Your task to perform on an android device: set default search engine in the chrome app Image 0: 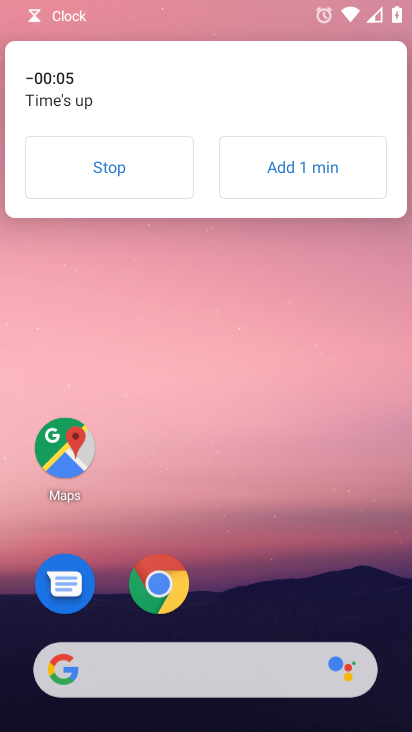
Step 0: click (280, 410)
Your task to perform on an android device: set default search engine in the chrome app Image 1: 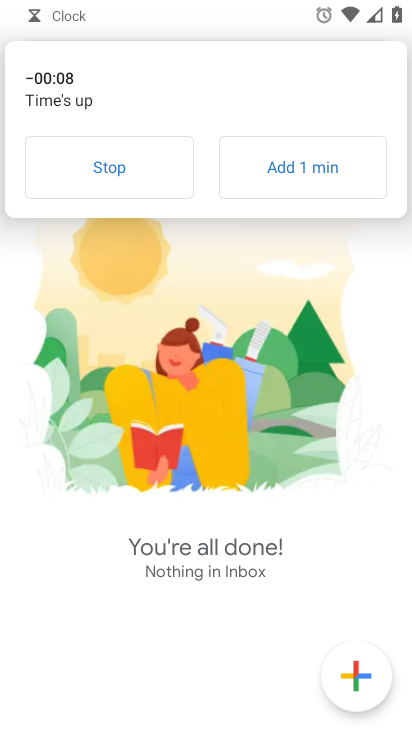
Step 1: press home button
Your task to perform on an android device: set default search engine in the chrome app Image 2: 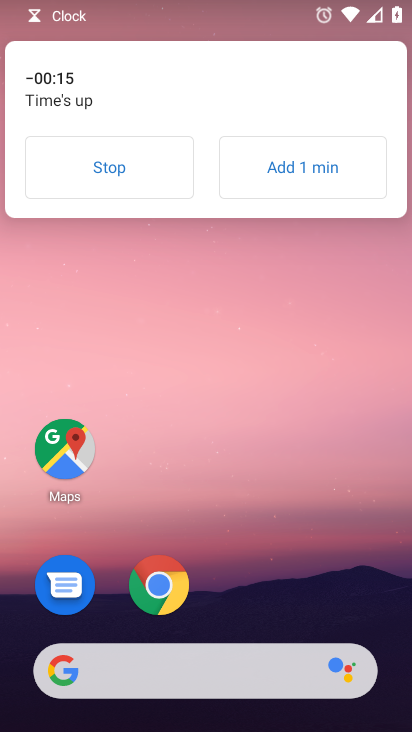
Step 2: click (156, 175)
Your task to perform on an android device: set default search engine in the chrome app Image 3: 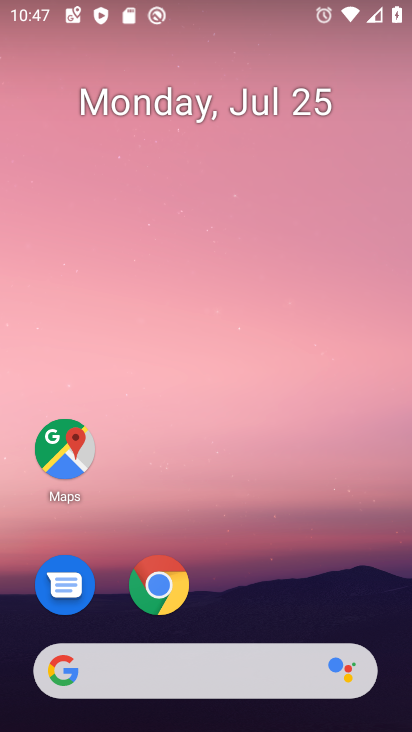
Step 3: drag from (249, 664) to (168, 26)
Your task to perform on an android device: set default search engine in the chrome app Image 4: 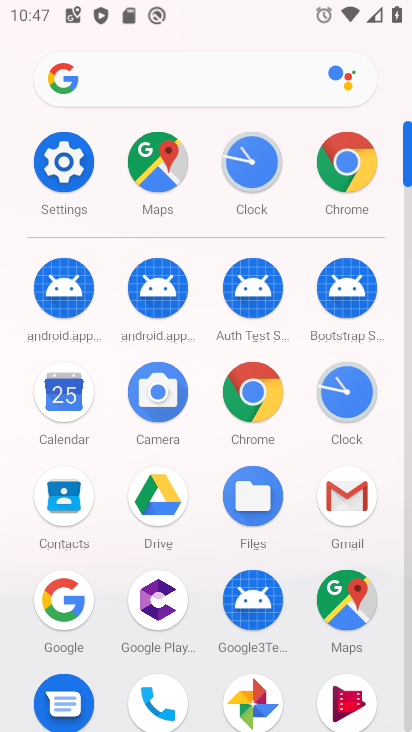
Step 4: click (254, 413)
Your task to perform on an android device: set default search engine in the chrome app Image 5: 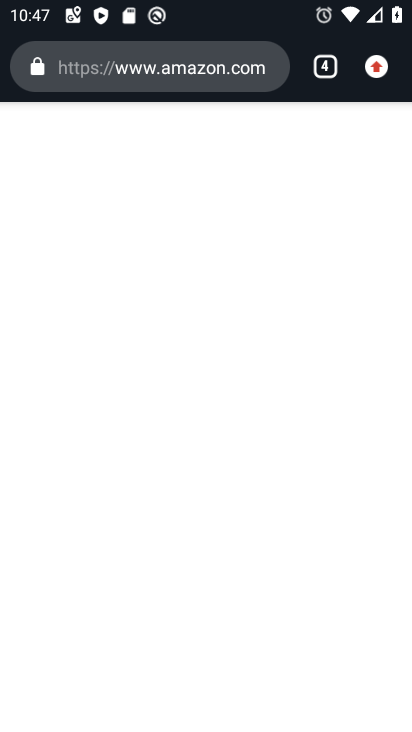
Step 5: click (321, 63)
Your task to perform on an android device: set default search engine in the chrome app Image 6: 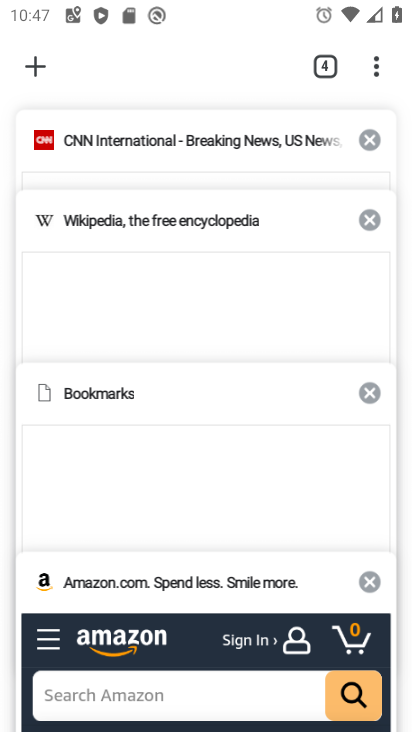
Step 6: click (34, 68)
Your task to perform on an android device: set default search engine in the chrome app Image 7: 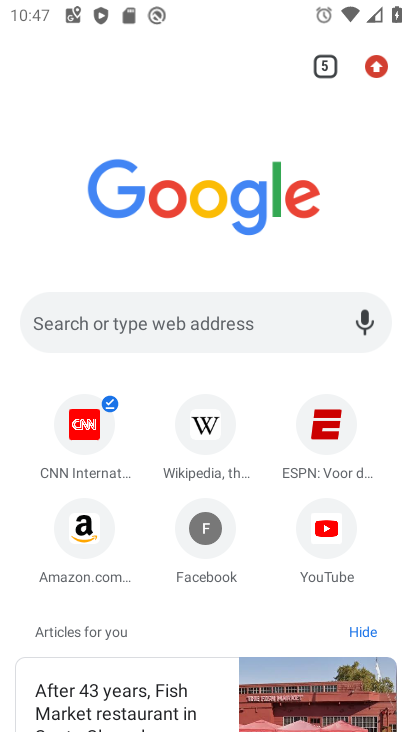
Step 7: click (379, 67)
Your task to perform on an android device: set default search engine in the chrome app Image 8: 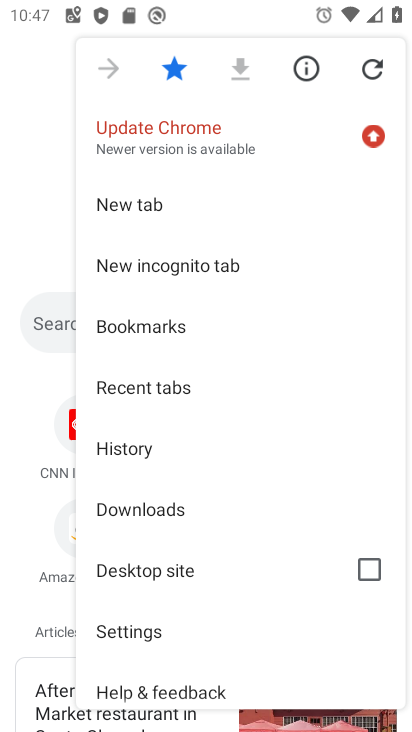
Step 8: click (171, 630)
Your task to perform on an android device: set default search engine in the chrome app Image 9: 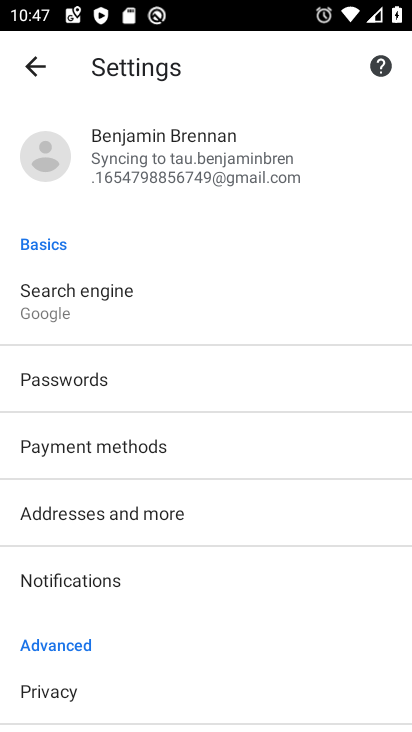
Step 9: click (59, 320)
Your task to perform on an android device: set default search engine in the chrome app Image 10: 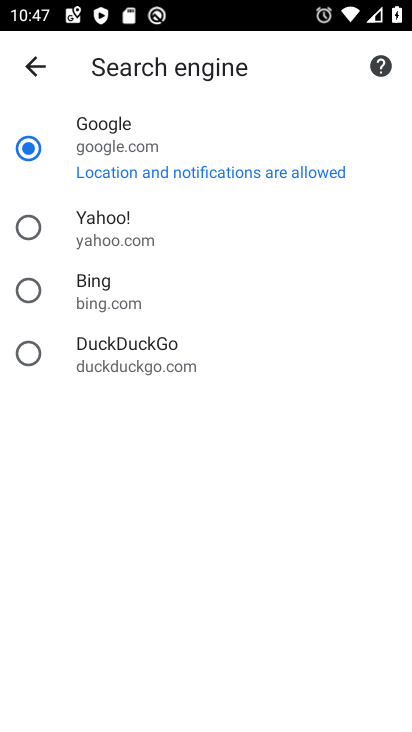
Step 10: click (22, 145)
Your task to perform on an android device: set default search engine in the chrome app Image 11: 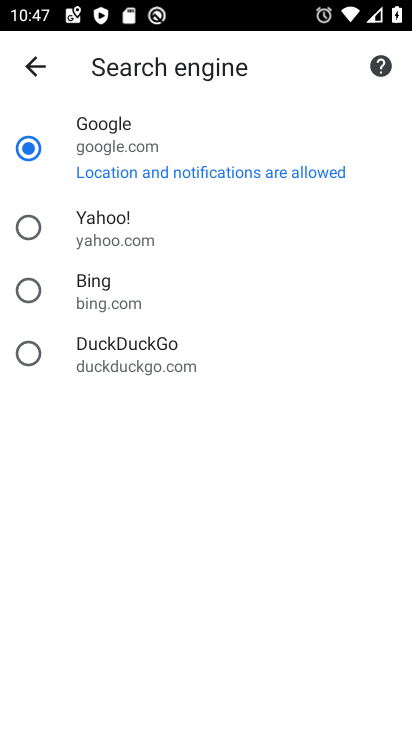
Step 11: task complete